Your task to perform on an android device: change the upload size in google photos Image 0: 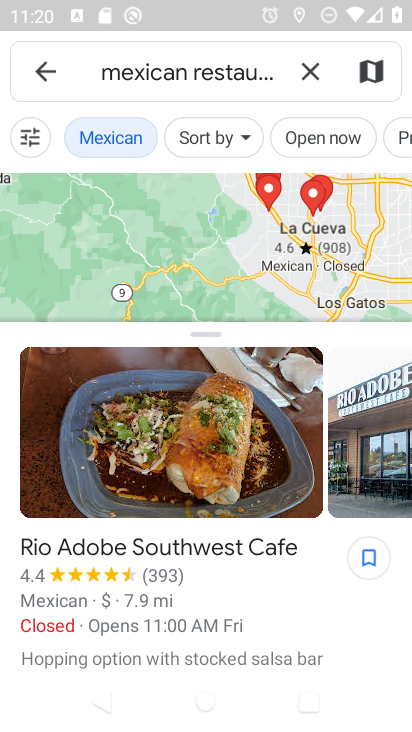
Step 0: press home button
Your task to perform on an android device: change the upload size in google photos Image 1: 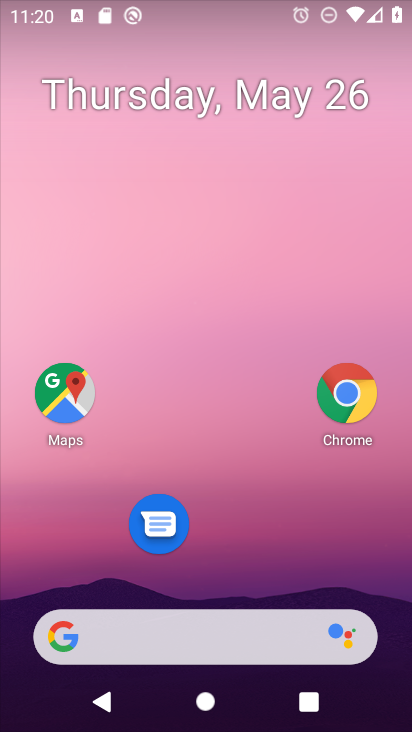
Step 1: drag from (253, 159) to (256, 0)
Your task to perform on an android device: change the upload size in google photos Image 2: 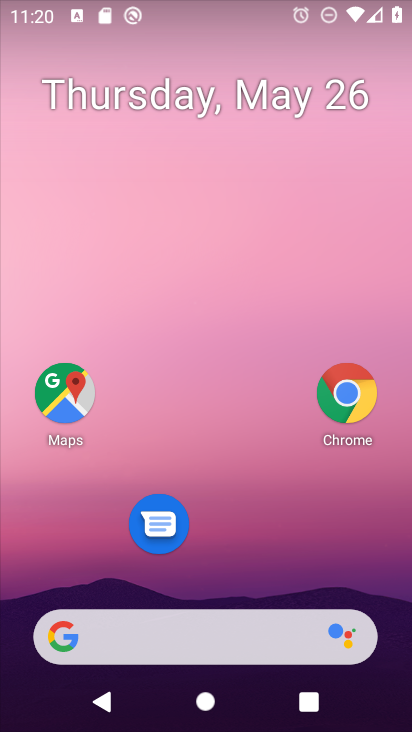
Step 2: drag from (241, 530) to (235, 0)
Your task to perform on an android device: change the upload size in google photos Image 3: 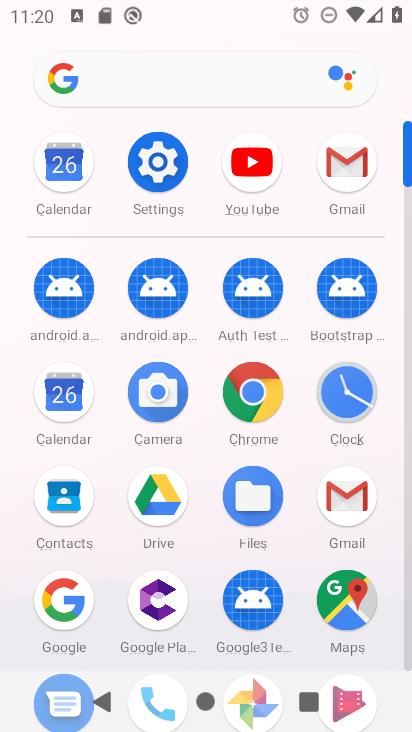
Step 3: drag from (287, 526) to (319, 251)
Your task to perform on an android device: change the upload size in google photos Image 4: 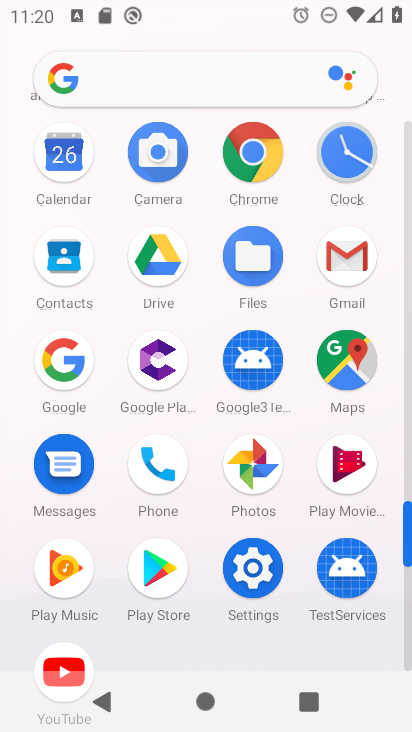
Step 4: click (271, 456)
Your task to perform on an android device: change the upload size in google photos Image 5: 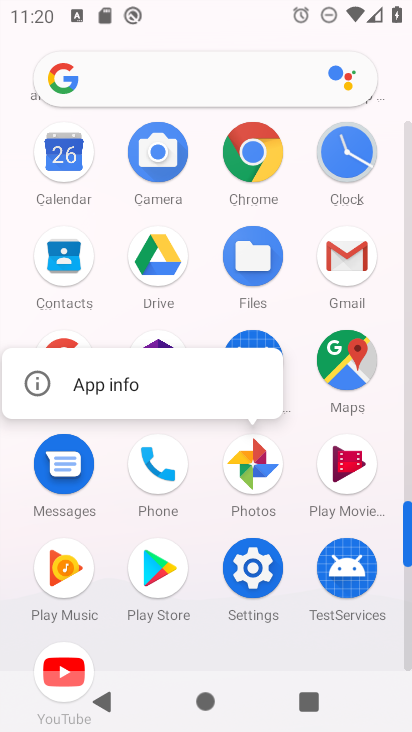
Step 5: click (259, 453)
Your task to perform on an android device: change the upload size in google photos Image 6: 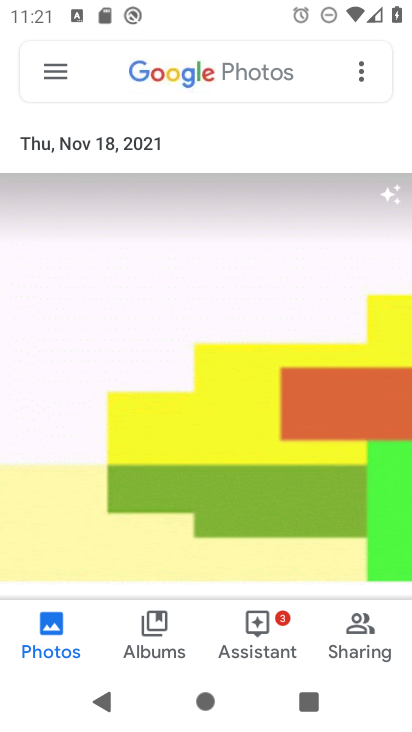
Step 6: click (55, 64)
Your task to perform on an android device: change the upload size in google photos Image 7: 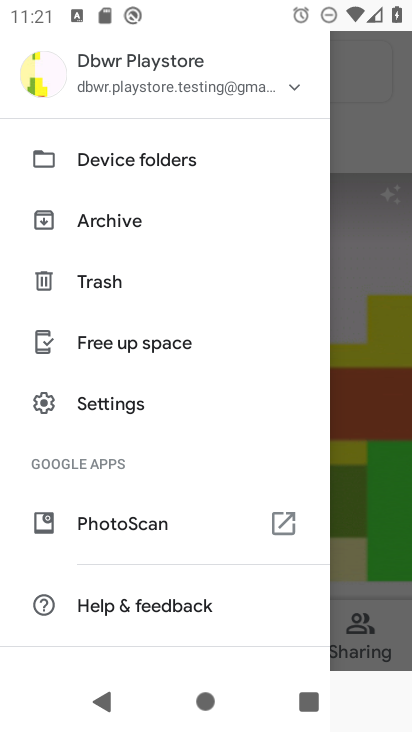
Step 7: click (113, 401)
Your task to perform on an android device: change the upload size in google photos Image 8: 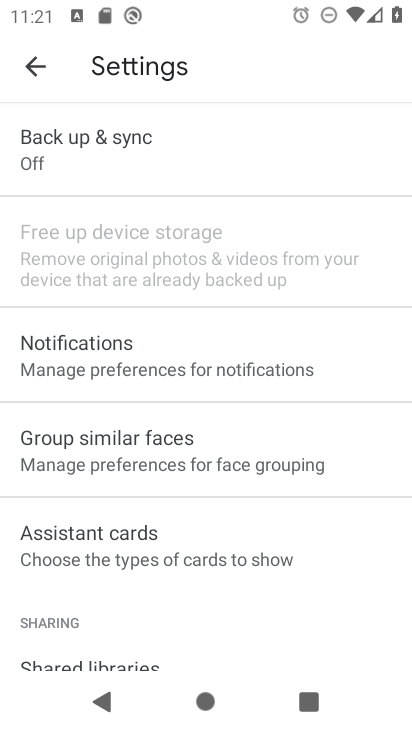
Step 8: click (181, 154)
Your task to perform on an android device: change the upload size in google photos Image 9: 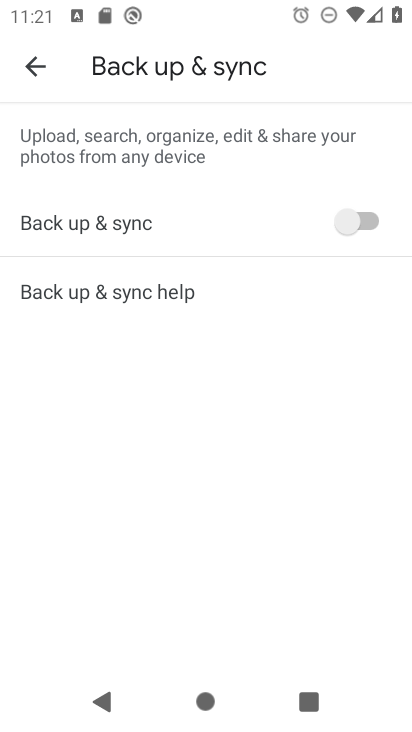
Step 9: click (362, 217)
Your task to perform on an android device: change the upload size in google photos Image 10: 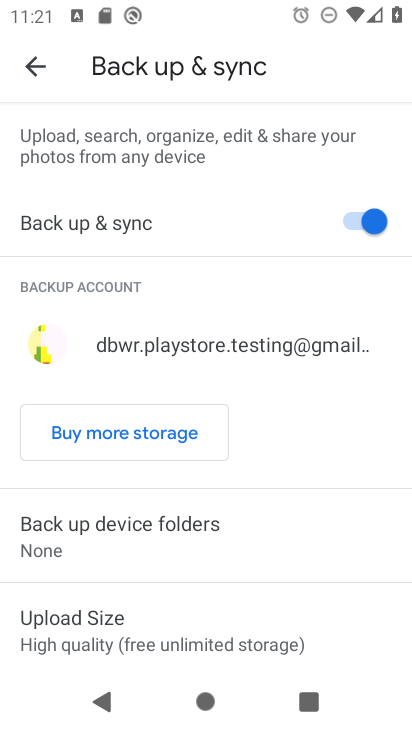
Step 10: drag from (248, 607) to (238, 436)
Your task to perform on an android device: change the upload size in google photos Image 11: 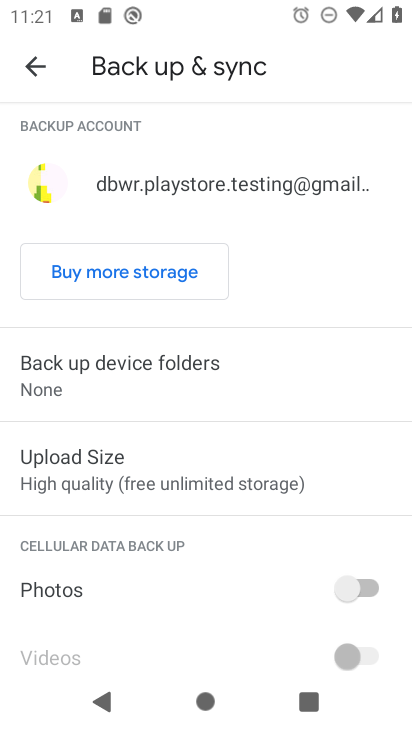
Step 11: click (221, 482)
Your task to perform on an android device: change the upload size in google photos Image 12: 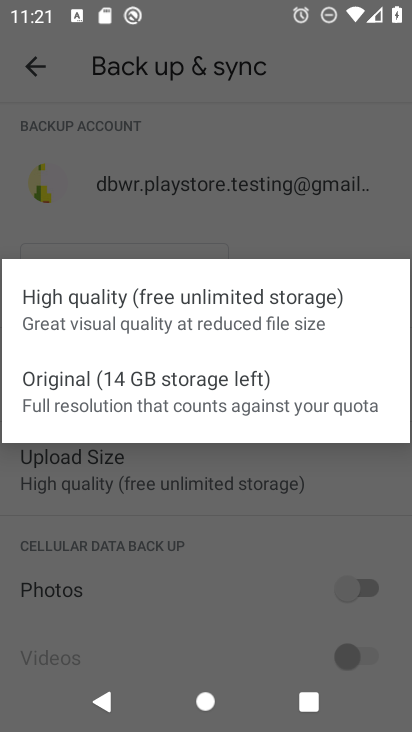
Step 12: click (217, 393)
Your task to perform on an android device: change the upload size in google photos Image 13: 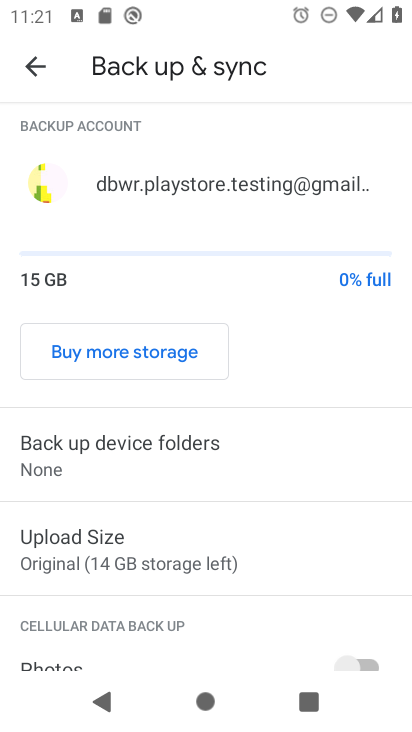
Step 13: task complete